Your task to perform on an android device: clear all cookies in the chrome app Image 0: 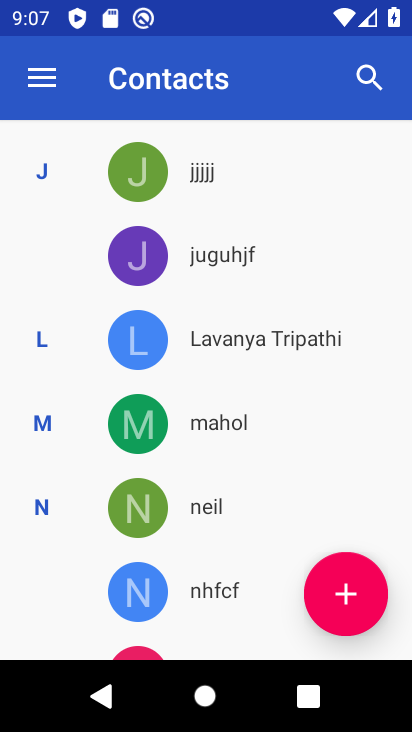
Step 0: press back button
Your task to perform on an android device: clear all cookies in the chrome app Image 1: 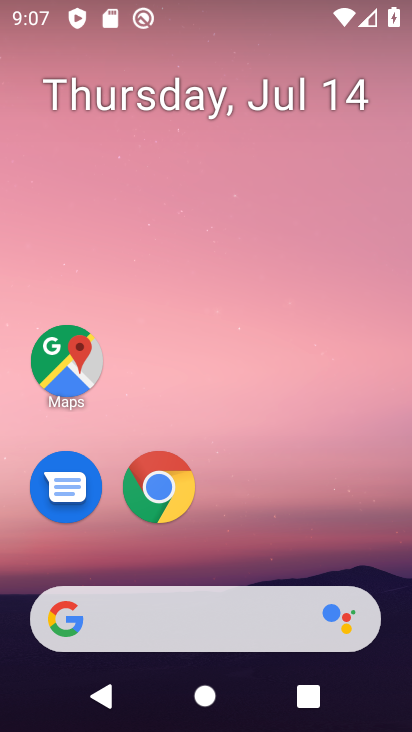
Step 1: click (156, 482)
Your task to perform on an android device: clear all cookies in the chrome app Image 2: 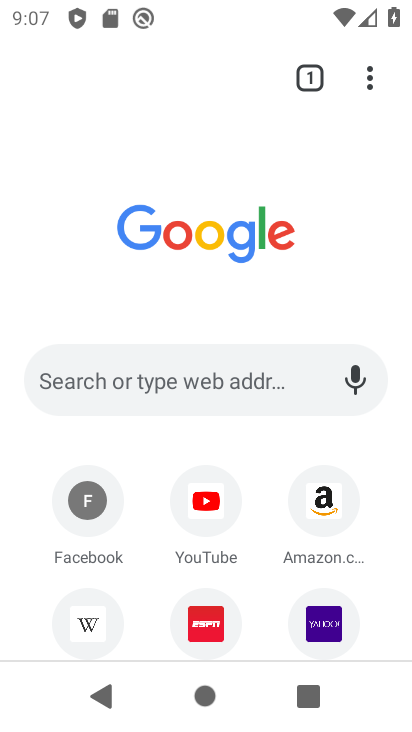
Step 2: drag from (362, 62) to (126, 541)
Your task to perform on an android device: clear all cookies in the chrome app Image 3: 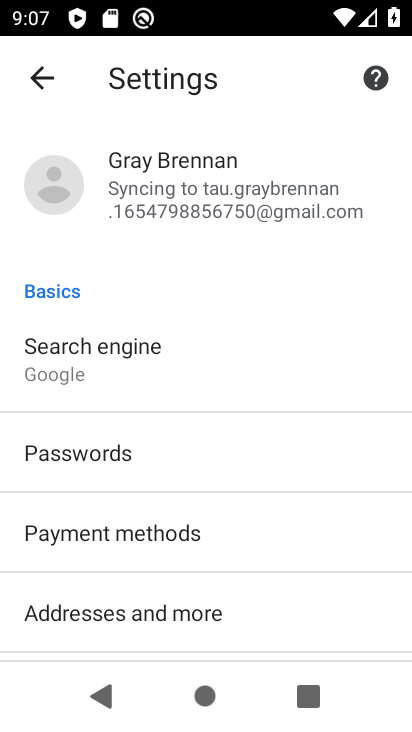
Step 3: click (70, 88)
Your task to perform on an android device: clear all cookies in the chrome app Image 4: 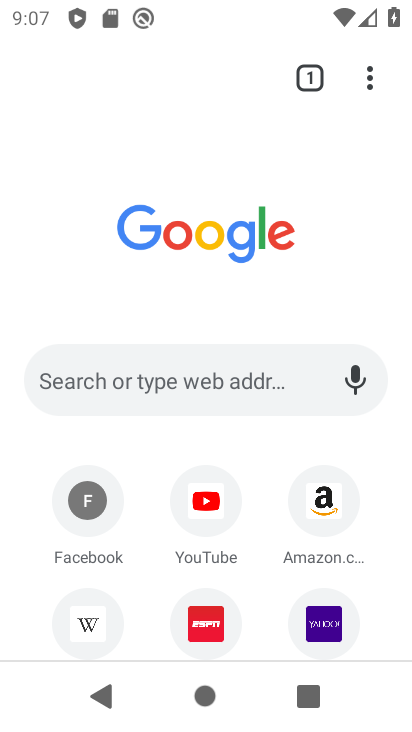
Step 4: click (360, 64)
Your task to perform on an android device: clear all cookies in the chrome app Image 5: 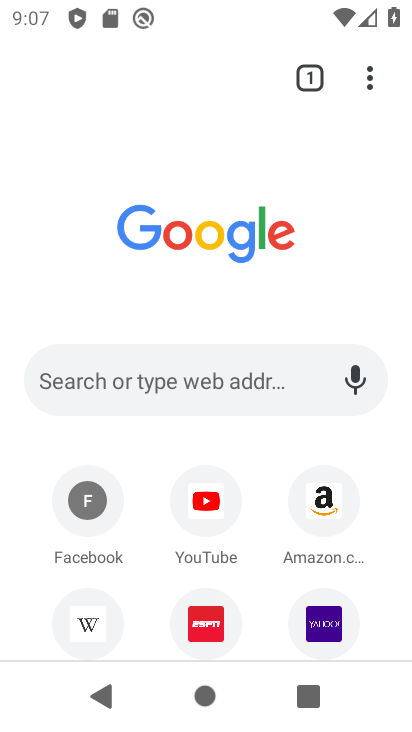
Step 5: drag from (365, 70) to (112, 440)
Your task to perform on an android device: clear all cookies in the chrome app Image 6: 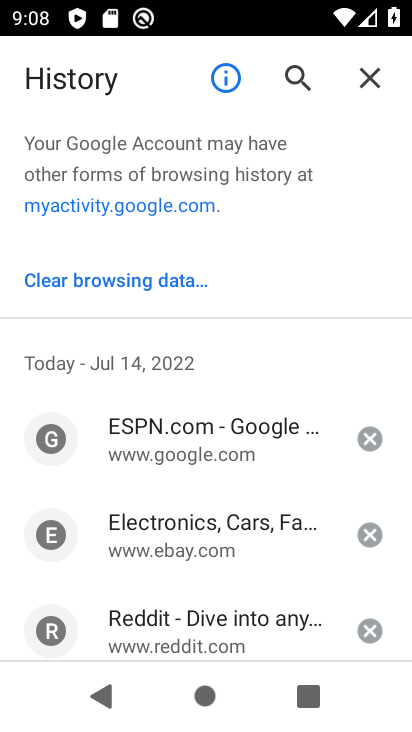
Step 6: click (145, 288)
Your task to perform on an android device: clear all cookies in the chrome app Image 7: 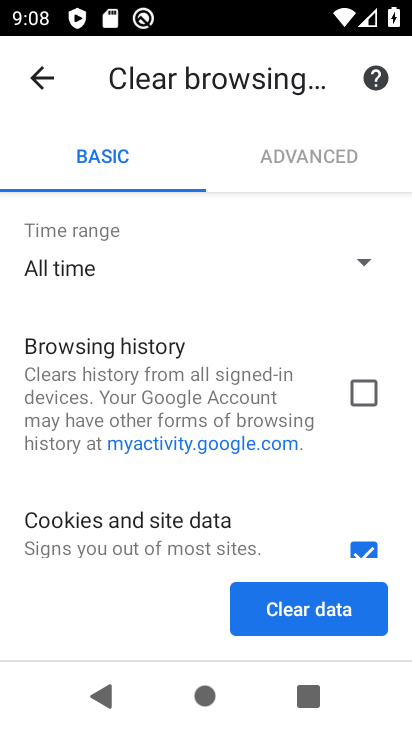
Step 7: click (308, 595)
Your task to perform on an android device: clear all cookies in the chrome app Image 8: 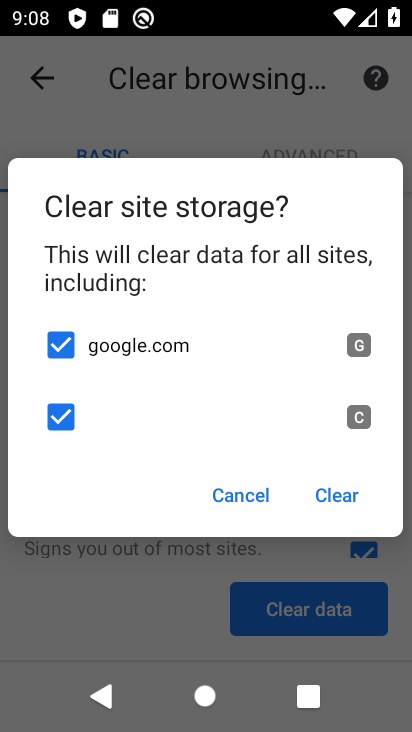
Step 8: click (346, 496)
Your task to perform on an android device: clear all cookies in the chrome app Image 9: 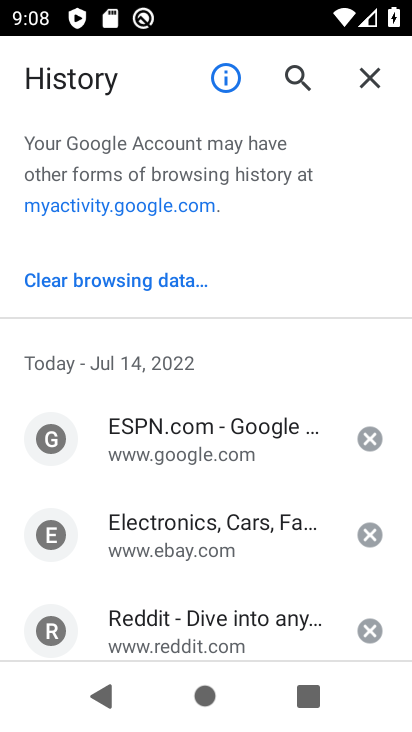
Step 9: task complete